Your task to perform on an android device: Open Android settings Image 0: 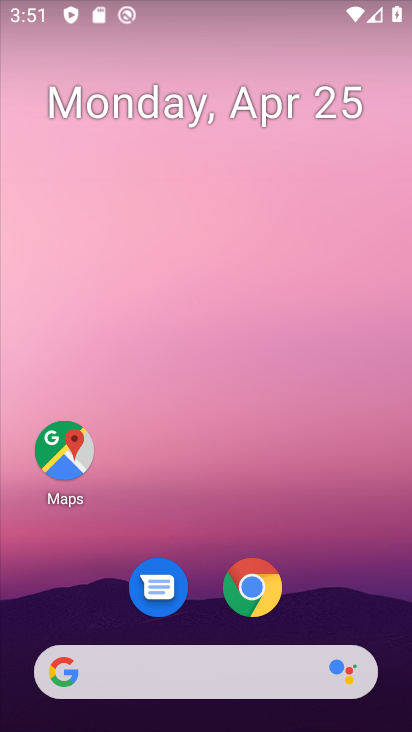
Step 0: drag from (206, 602) to (234, 189)
Your task to perform on an android device: Open Android settings Image 1: 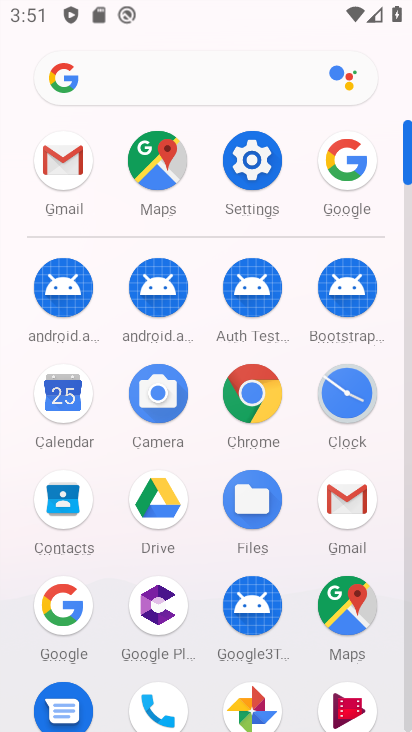
Step 1: click (253, 158)
Your task to perform on an android device: Open Android settings Image 2: 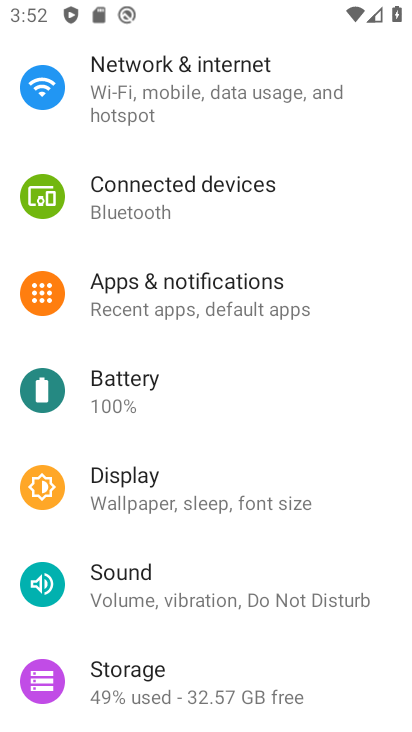
Step 2: task complete